Your task to perform on an android device: Go to Yahoo.com Image 0: 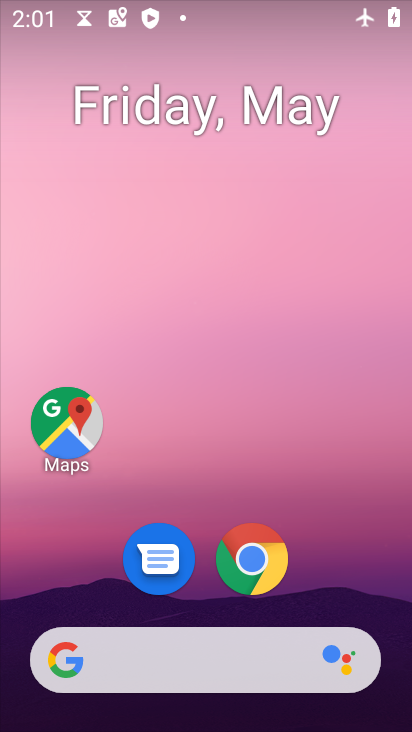
Step 0: click (256, 566)
Your task to perform on an android device: Go to Yahoo.com Image 1: 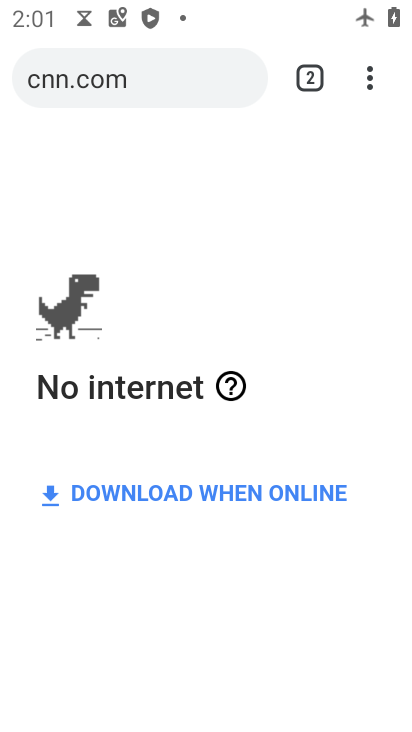
Step 1: click (196, 75)
Your task to perform on an android device: Go to Yahoo.com Image 2: 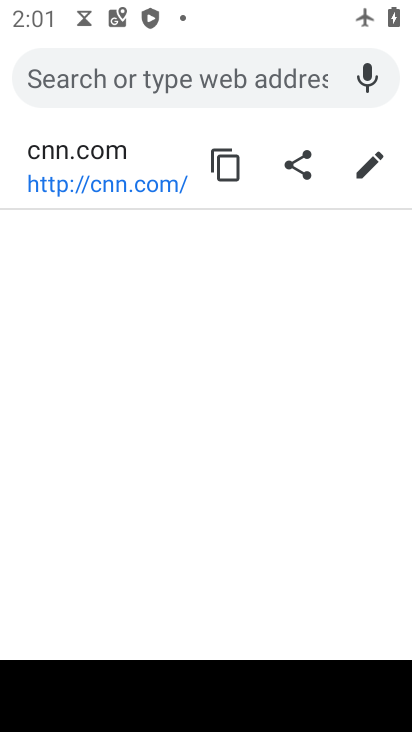
Step 2: type "yahoo.com"
Your task to perform on an android device: Go to Yahoo.com Image 3: 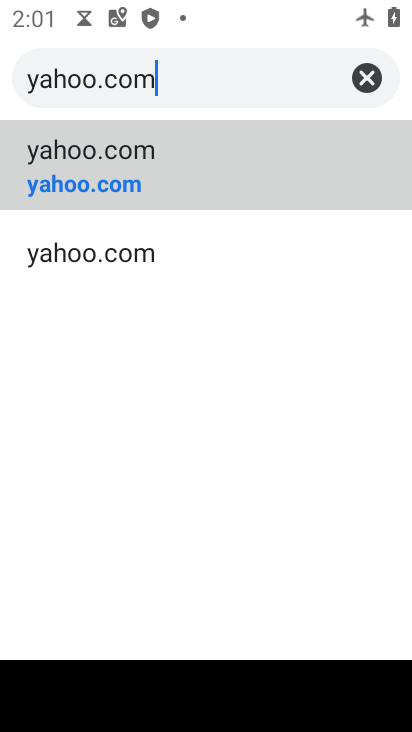
Step 3: click (127, 161)
Your task to perform on an android device: Go to Yahoo.com Image 4: 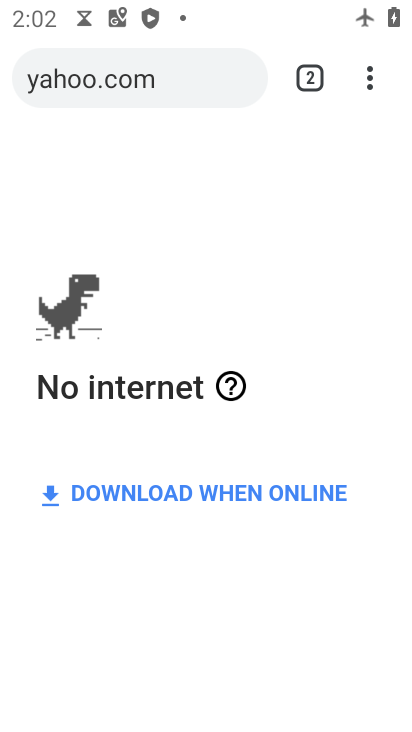
Step 4: drag from (226, 12) to (223, 413)
Your task to perform on an android device: Go to Yahoo.com Image 5: 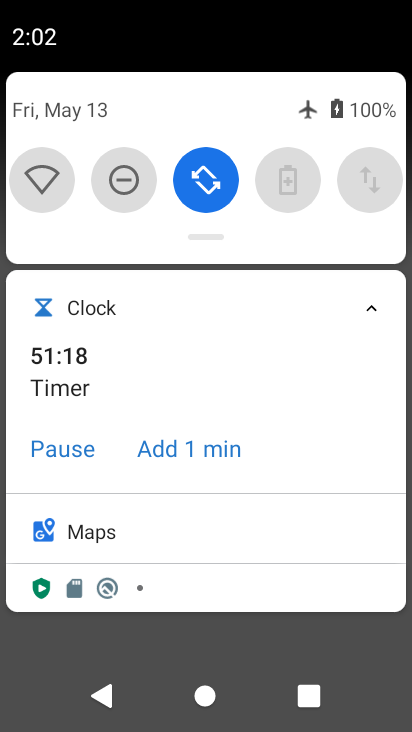
Step 5: click (57, 178)
Your task to perform on an android device: Go to Yahoo.com Image 6: 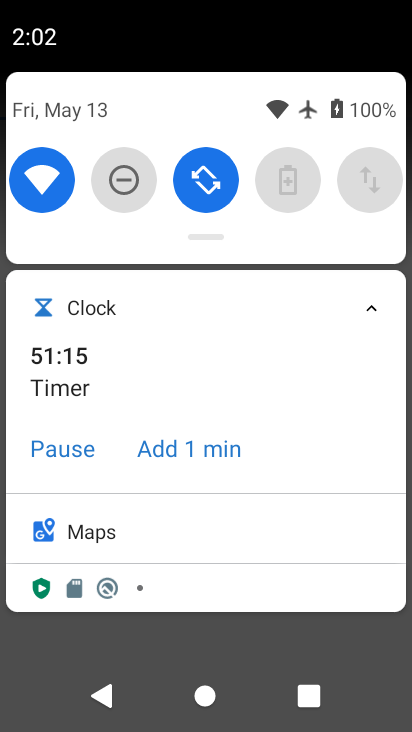
Step 6: task complete